Your task to perform on an android device: turn on wifi Image 0: 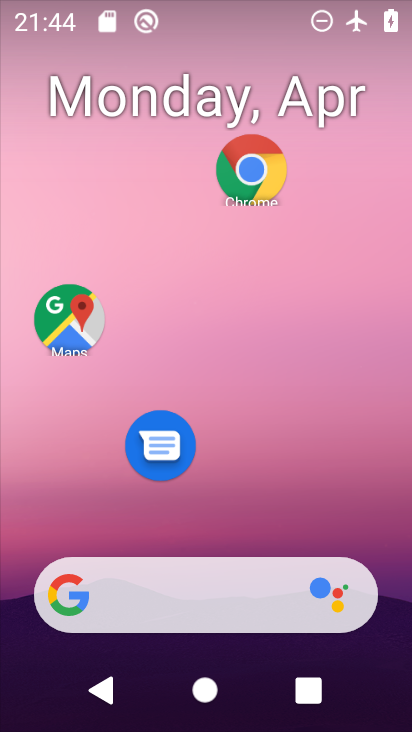
Step 0: drag from (212, 528) to (199, 183)
Your task to perform on an android device: turn on wifi Image 1: 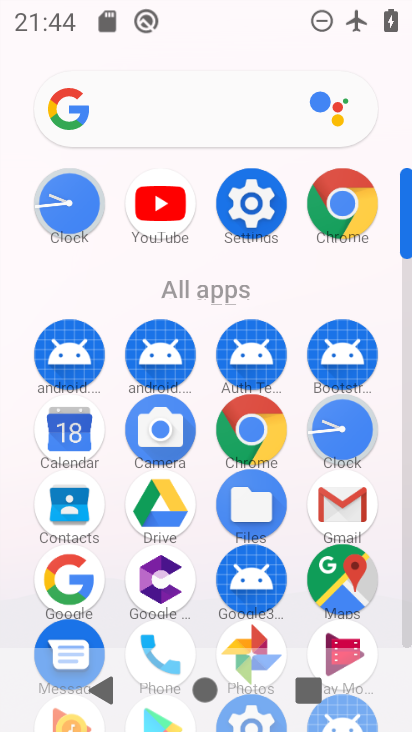
Step 1: click (256, 223)
Your task to perform on an android device: turn on wifi Image 2: 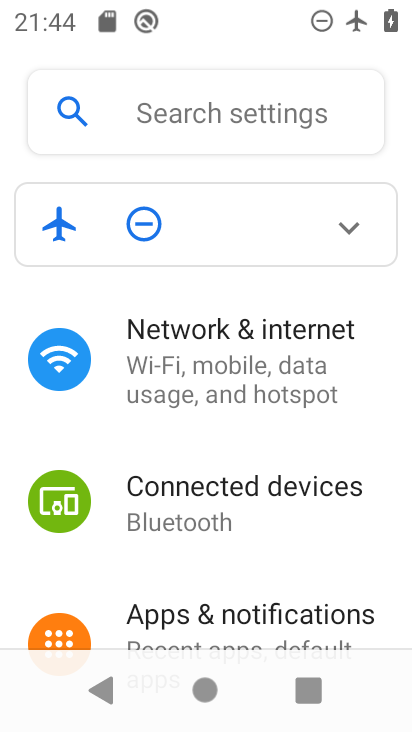
Step 2: click (203, 356)
Your task to perform on an android device: turn on wifi Image 3: 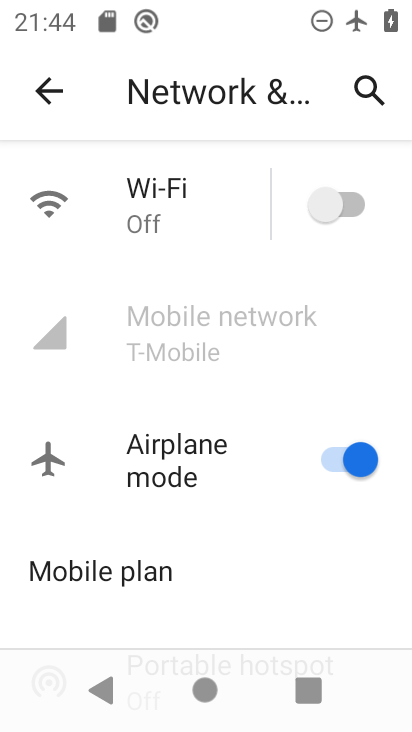
Step 3: click (351, 204)
Your task to perform on an android device: turn on wifi Image 4: 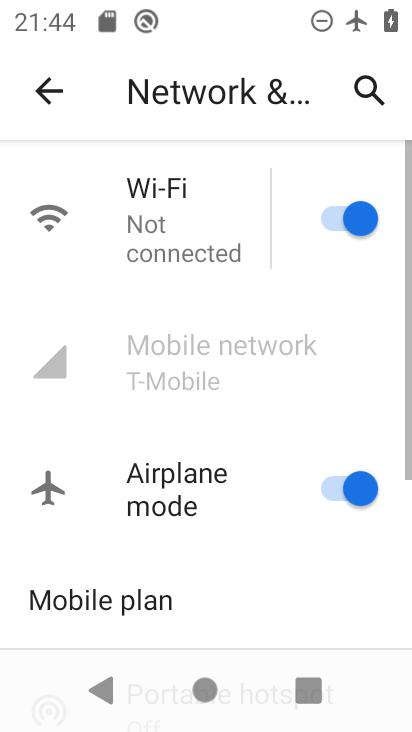
Step 4: task complete